Your task to perform on an android device: Search for pizza restaurants on Maps Image 0: 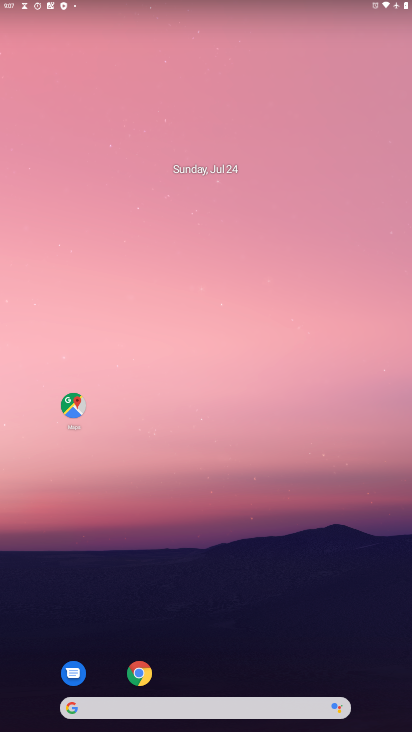
Step 0: drag from (215, 676) to (326, 196)
Your task to perform on an android device: Search for pizza restaurants on Maps Image 1: 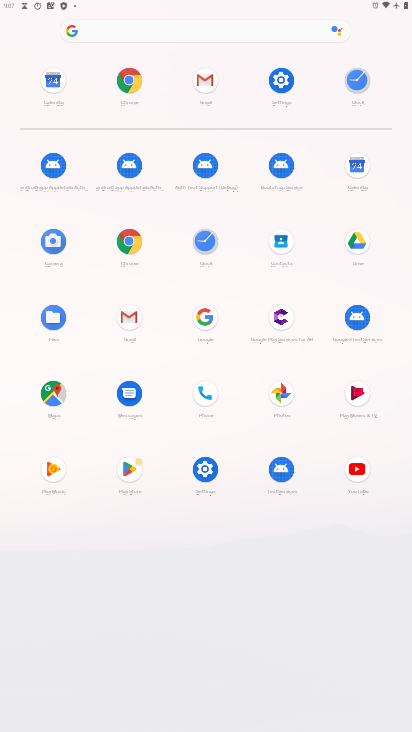
Step 1: click (54, 388)
Your task to perform on an android device: Search for pizza restaurants on Maps Image 2: 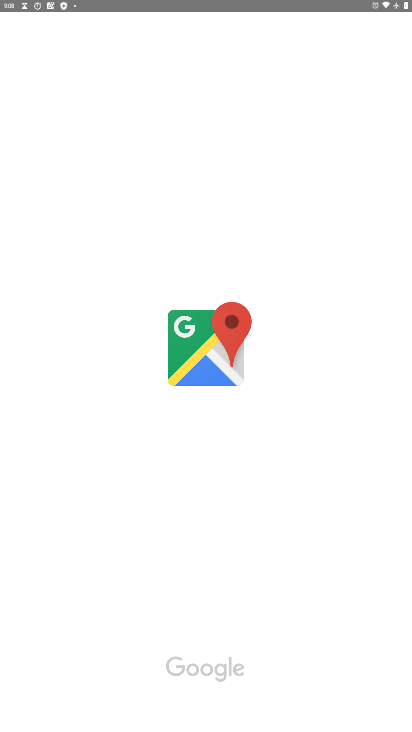
Step 2: drag from (205, 623) to (205, 398)
Your task to perform on an android device: Search for pizza restaurants on Maps Image 3: 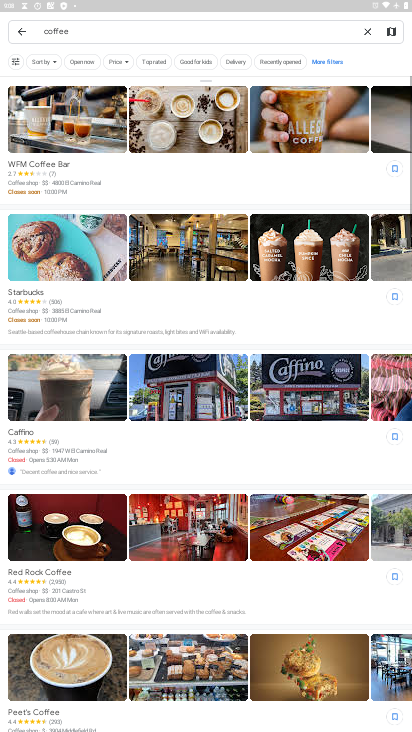
Step 3: drag from (226, 507) to (208, 337)
Your task to perform on an android device: Search for pizza restaurants on Maps Image 4: 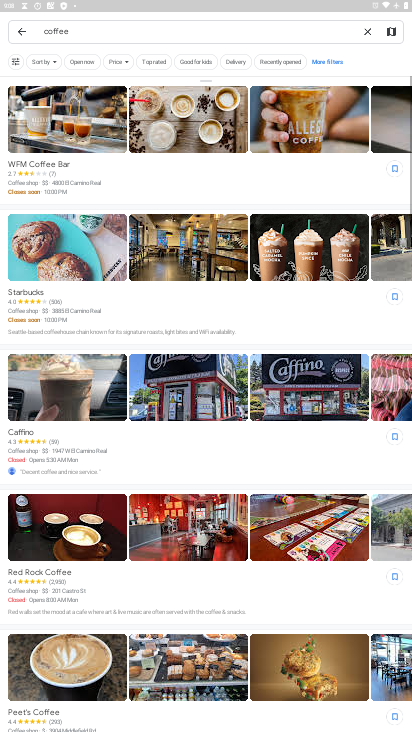
Step 4: drag from (217, 226) to (220, 525)
Your task to perform on an android device: Search for pizza restaurants on Maps Image 5: 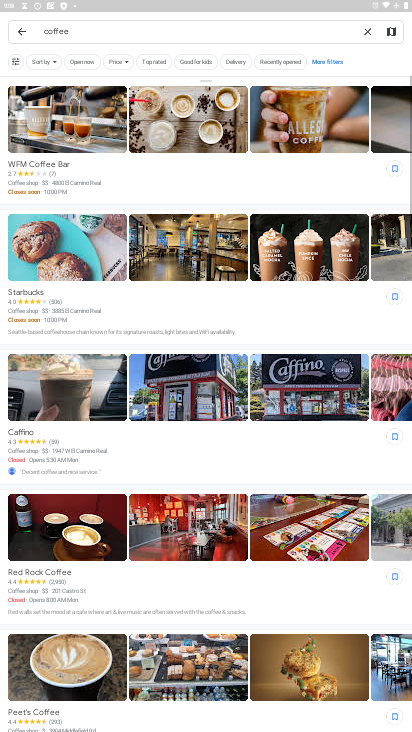
Step 5: click (365, 32)
Your task to perform on an android device: Search for pizza restaurants on Maps Image 6: 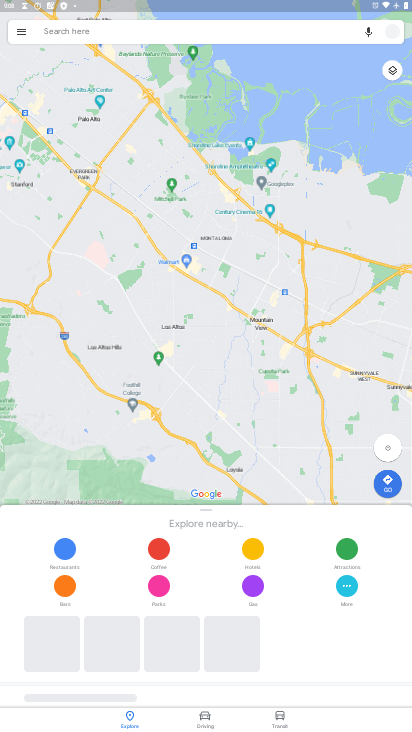
Step 6: click (74, 32)
Your task to perform on an android device: Search for pizza restaurants on Maps Image 7: 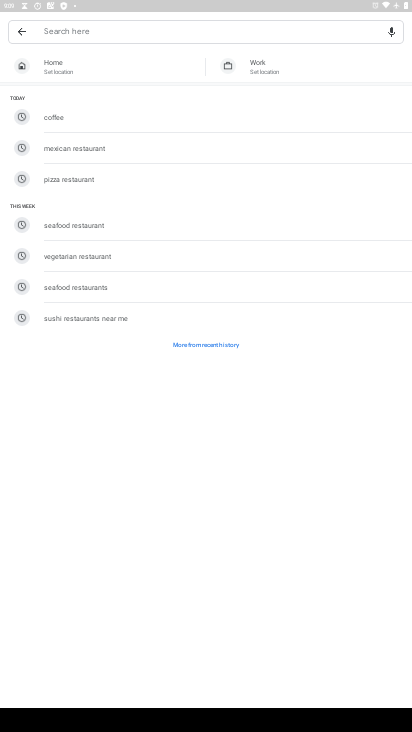
Step 7: click (81, 172)
Your task to perform on an android device: Search for pizza restaurants on Maps Image 8: 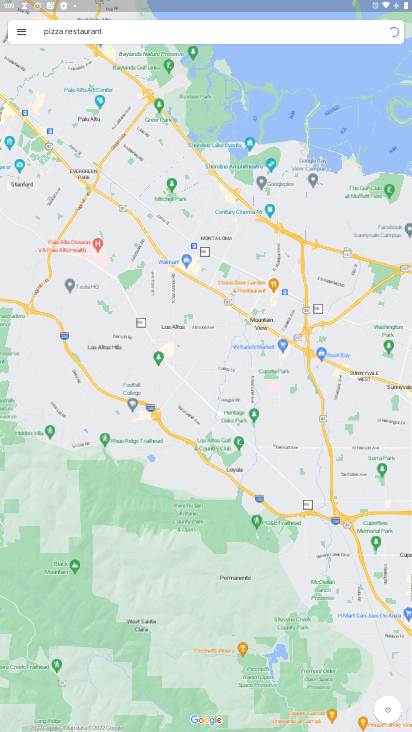
Step 8: task complete